Your task to perform on an android device: remove spam from my inbox in the gmail app Image 0: 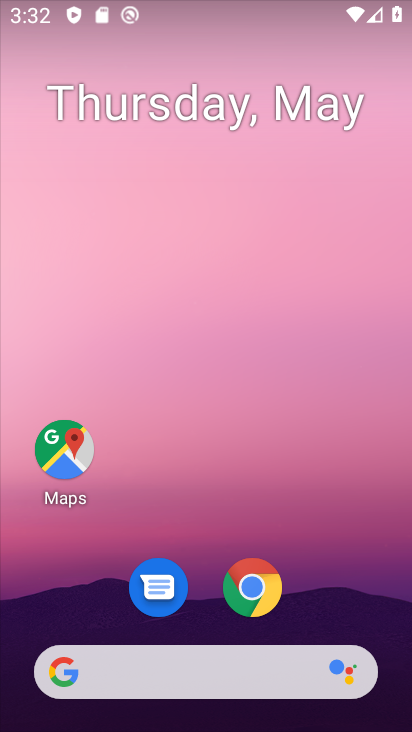
Step 0: drag from (343, 533) to (268, 3)
Your task to perform on an android device: remove spam from my inbox in the gmail app Image 1: 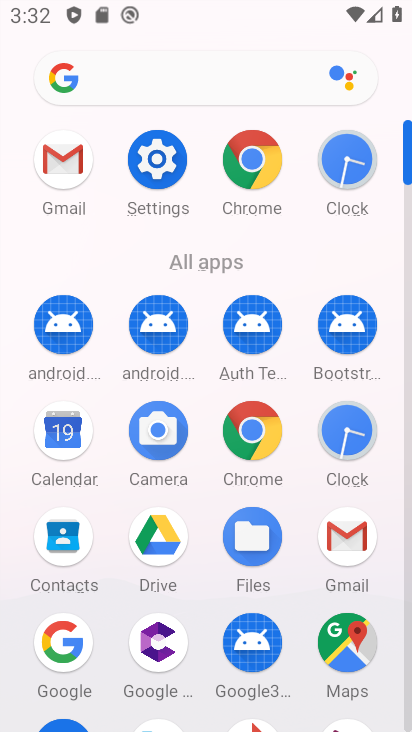
Step 1: drag from (3, 576) to (25, 276)
Your task to perform on an android device: remove spam from my inbox in the gmail app Image 2: 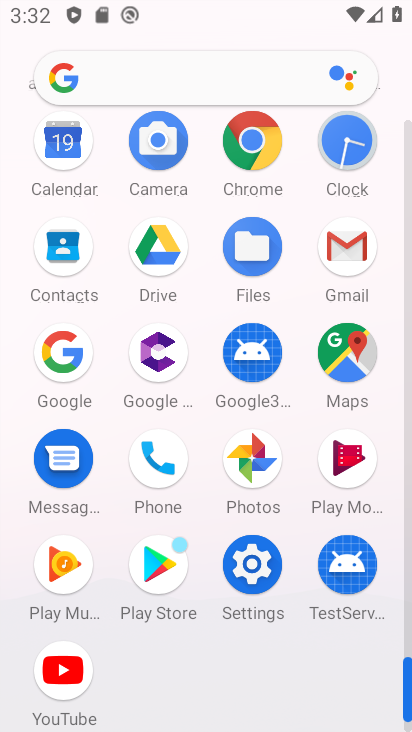
Step 2: click (346, 238)
Your task to perform on an android device: remove spam from my inbox in the gmail app Image 3: 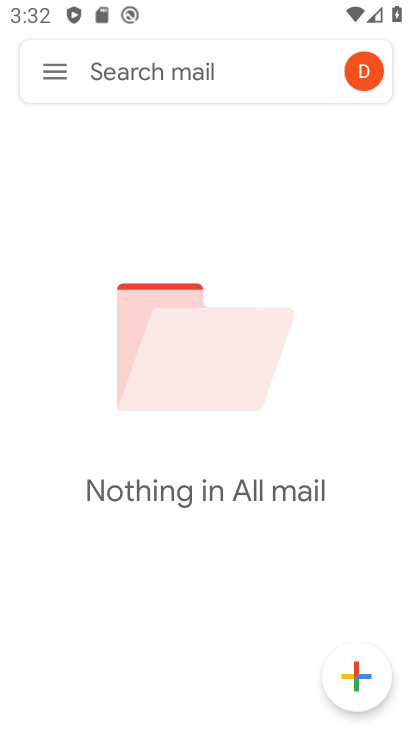
Step 3: click (55, 54)
Your task to perform on an android device: remove spam from my inbox in the gmail app Image 4: 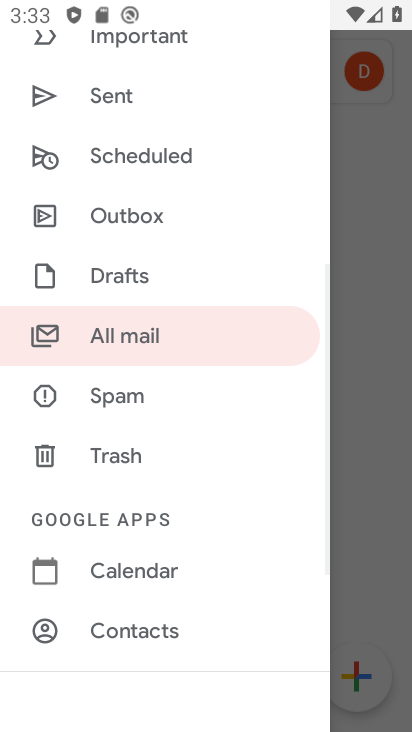
Step 4: click (140, 386)
Your task to perform on an android device: remove spam from my inbox in the gmail app Image 5: 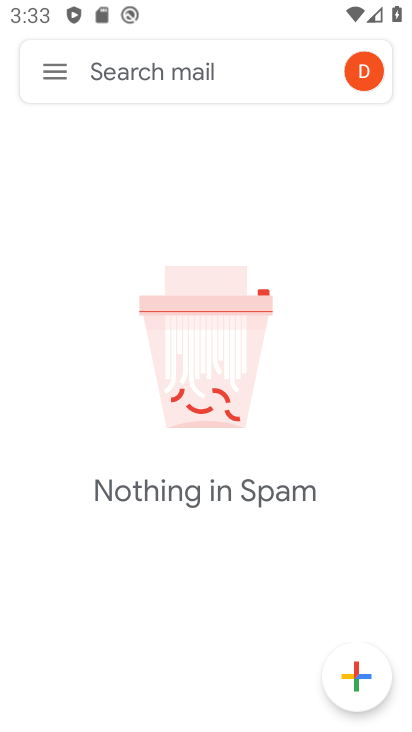
Step 5: task complete